Your task to perform on an android device: turn off javascript in the chrome app Image 0: 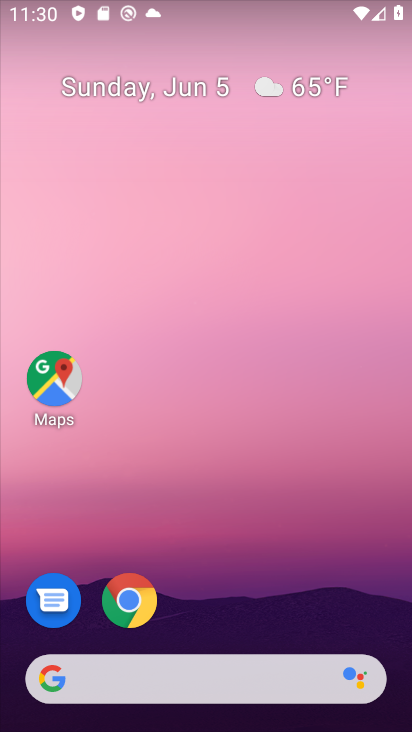
Step 0: drag from (376, 562) to (373, 101)
Your task to perform on an android device: turn off javascript in the chrome app Image 1: 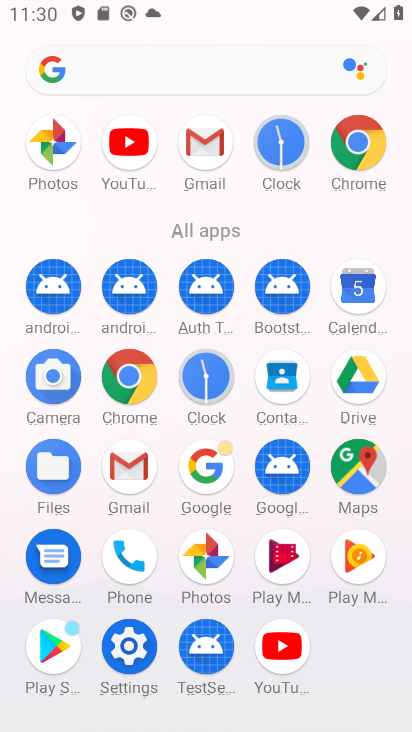
Step 1: click (117, 393)
Your task to perform on an android device: turn off javascript in the chrome app Image 2: 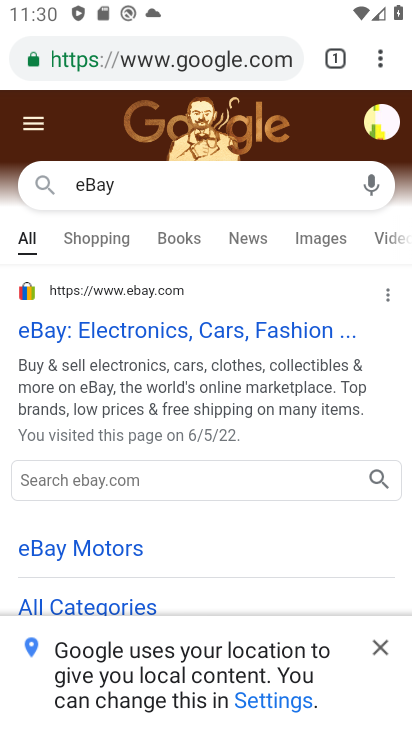
Step 2: click (387, 51)
Your task to perform on an android device: turn off javascript in the chrome app Image 3: 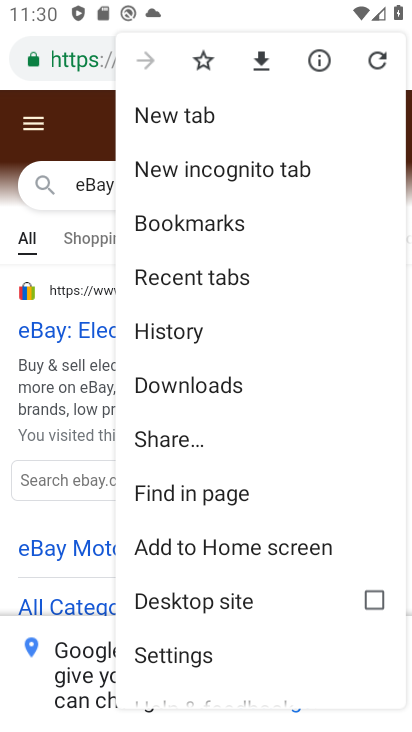
Step 3: click (168, 653)
Your task to perform on an android device: turn off javascript in the chrome app Image 4: 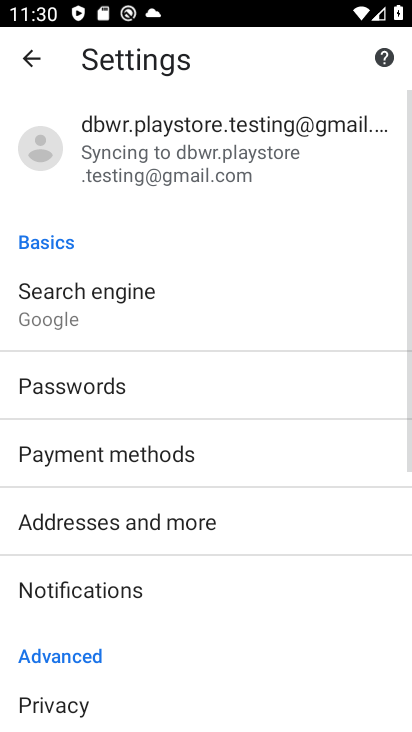
Step 4: drag from (176, 607) to (186, 429)
Your task to perform on an android device: turn off javascript in the chrome app Image 5: 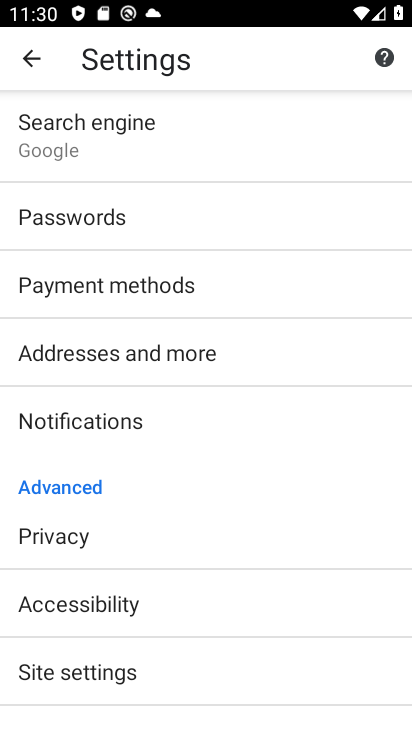
Step 5: click (74, 666)
Your task to perform on an android device: turn off javascript in the chrome app Image 6: 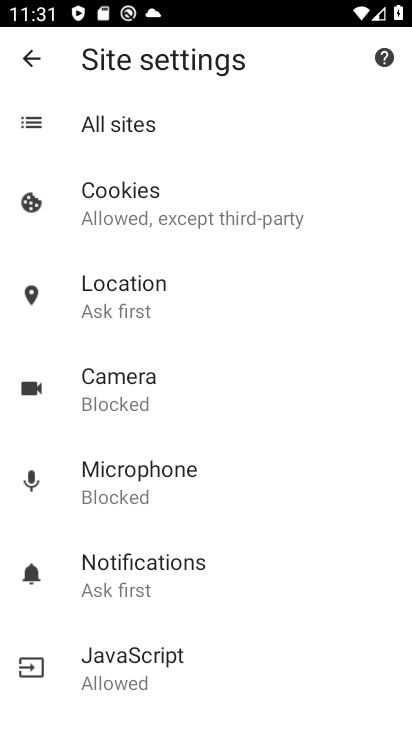
Step 6: click (128, 666)
Your task to perform on an android device: turn off javascript in the chrome app Image 7: 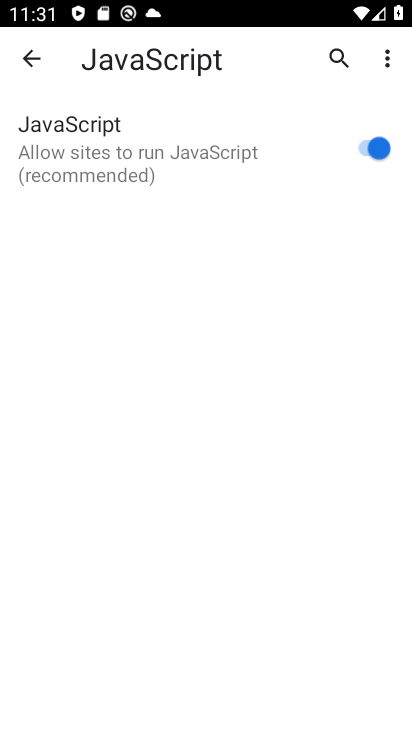
Step 7: click (357, 149)
Your task to perform on an android device: turn off javascript in the chrome app Image 8: 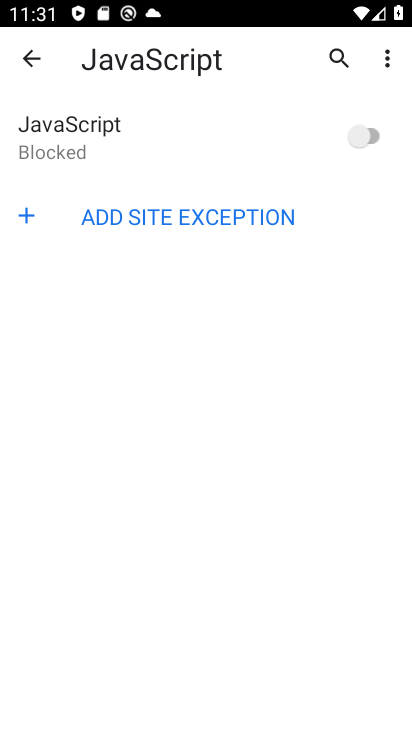
Step 8: task complete